Your task to perform on an android device: stop showing notifications on the lock screen Image 0: 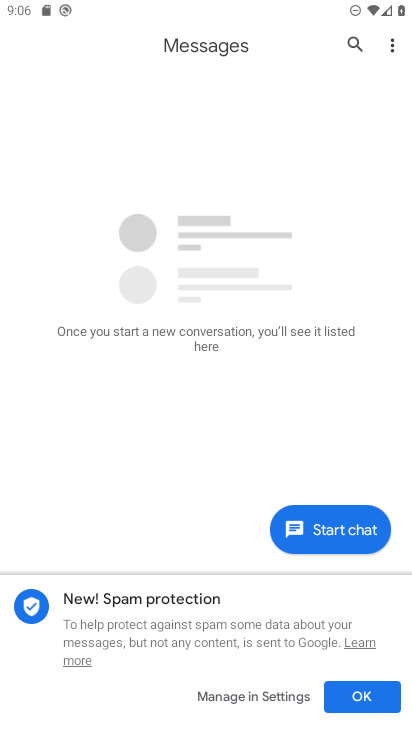
Step 0: press home button
Your task to perform on an android device: stop showing notifications on the lock screen Image 1: 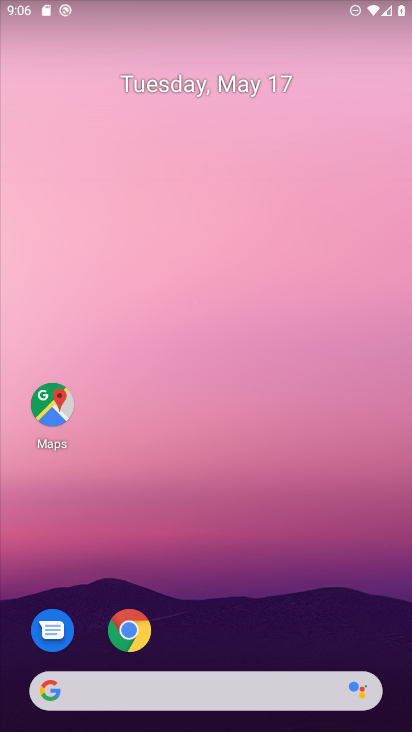
Step 1: drag from (356, 616) to (349, 193)
Your task to perform on an android device: stop showing notifications on the lock screen Image 2: 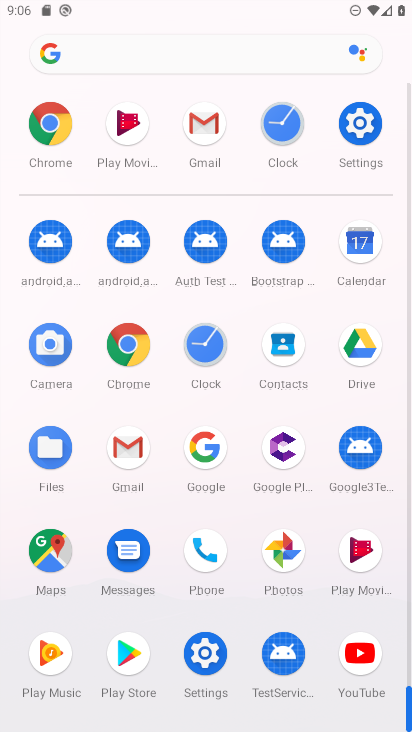
Step 2: click (219, 666)
Your task to perform on an android device: stop showing notifications on the lock screen Image 3: 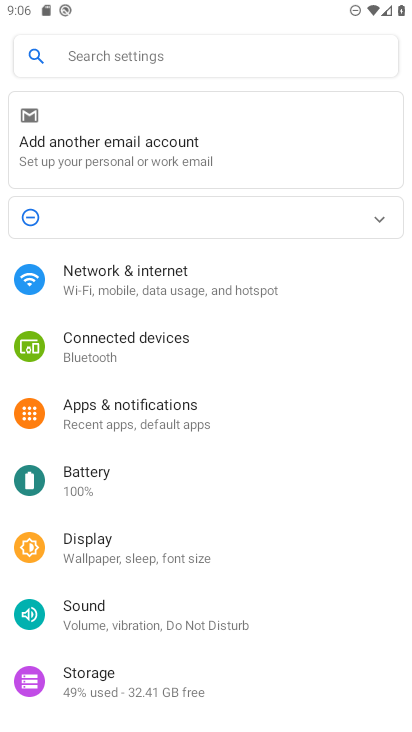
Step 3: drag from (322, 569) to (325, 466)
Your task to perform on an android device: stop showing notifications on the lock screen Image 4: 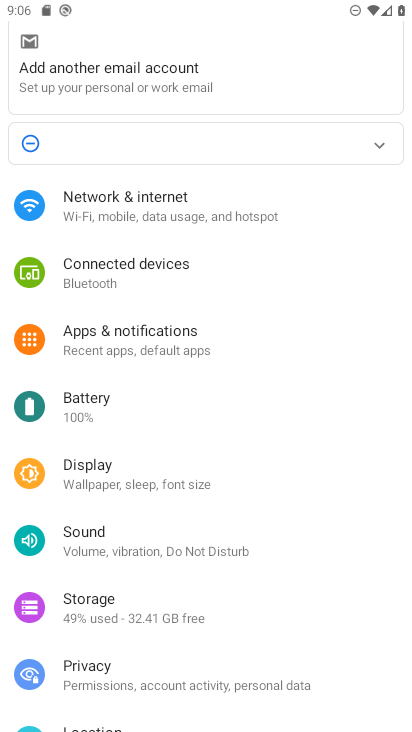
Step 4: drag from (321, 595) to (321, 485)
Your task to perform on an android device: stop showing notifications on the lock screen Image 5: 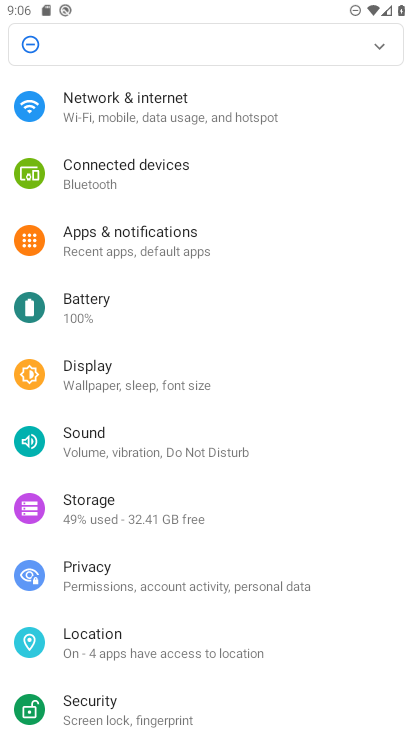
Step 5: drag from (337, 639) to (337, 508)
Your task to perform on an android device: stop showing notifications on the lock screen Image 6: 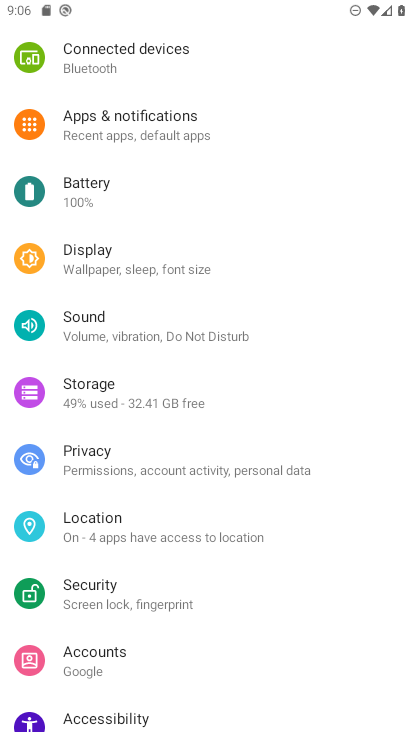
Step 6: drag from (321, 680) to (325, 529)
Your task to perform on an android device: stop showing notifications on the lock screen Image 7: 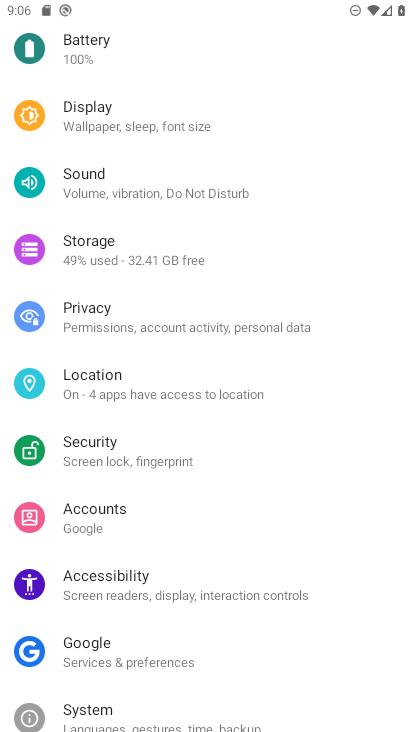
Step 7: drag from (341, 663) to (347, 545)
Your task to perform on an android device: stop showing notifications on the lock screen Image 8: 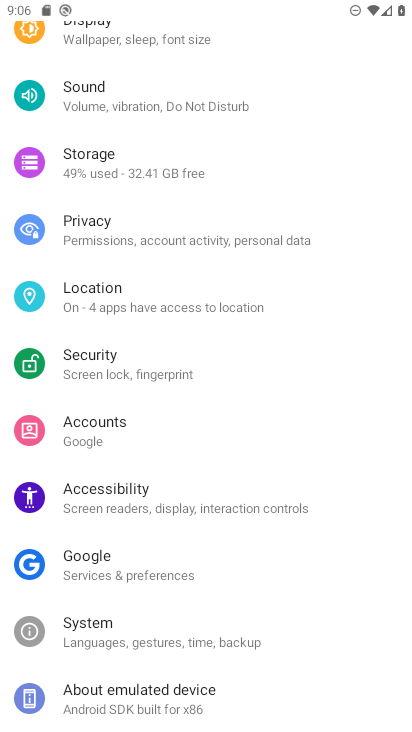
Step 8: drag from (347, 661) to (335, 536)
Your task to perform on an android device: stop showing notifications on the lock screen Image 9: 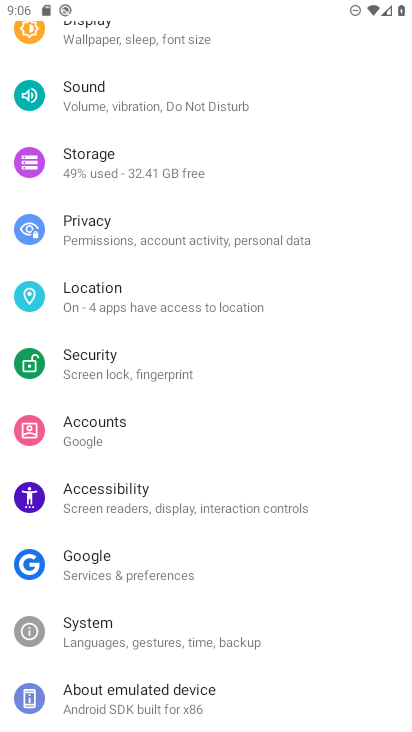
Step 9: drag from (338, 395) to (337, 525)
Your task to perform on an android device: stop showing notifications on the lock screen Image 10: 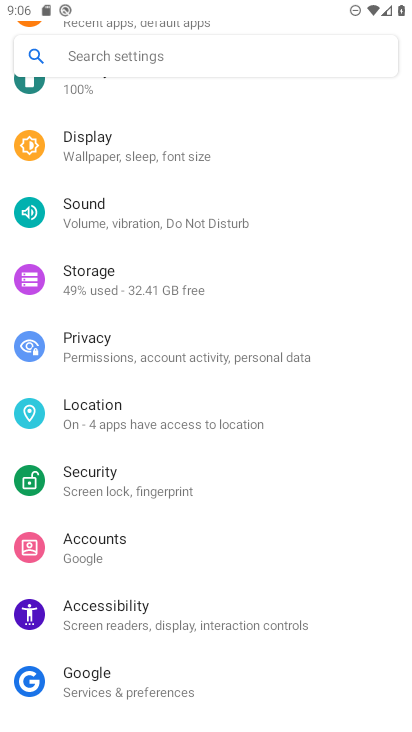
Step 10: drag from (347, 382) to (350, 511)
Your task to perform on an android device: stop showing notifications on the lock screen Image 11: 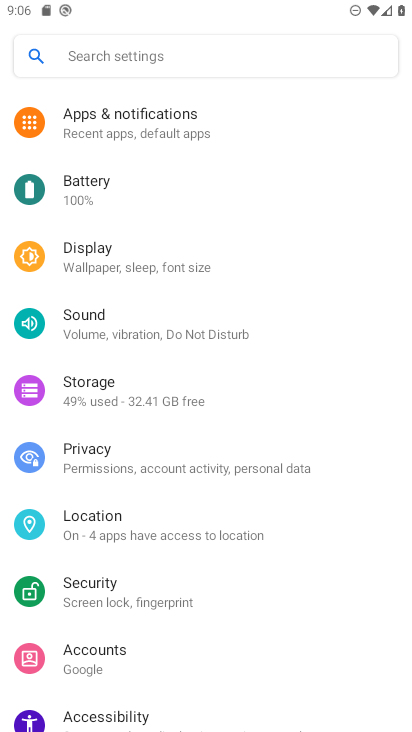
Step 11: drag from (359, 364) to (345, 514)
Your task to perform on an android device: stop showing notifications on the lock screen Image 12: 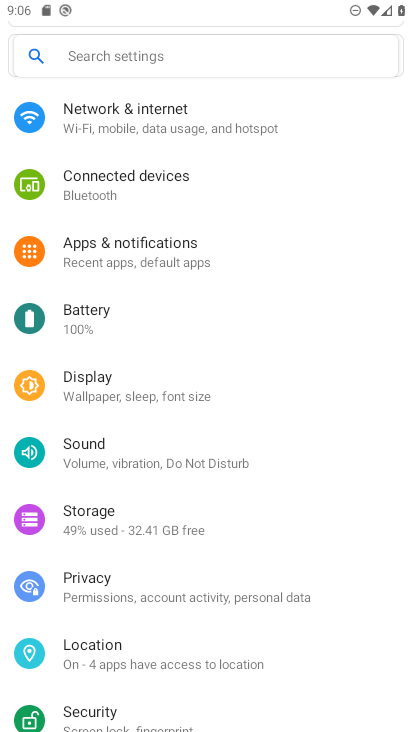
Step 12: drag from (334, 328) to (322, 452)
Your task to perform on an android device: stop showing notifications on the lock screen Image 13: 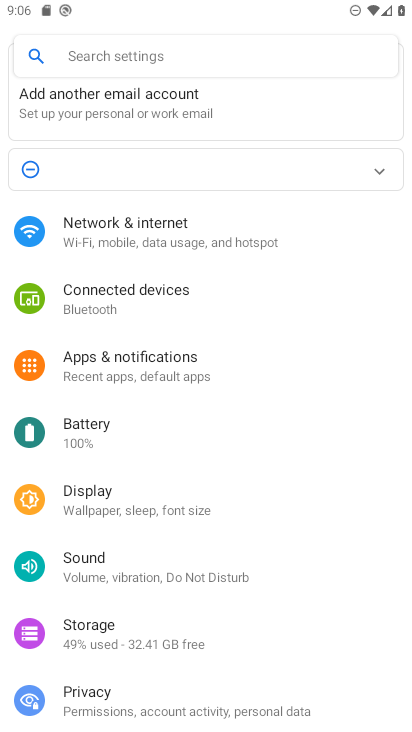
Step 13: click (189, 360)
Your task to perform on an android device: stop showing notifications on the lock screen Image 14: 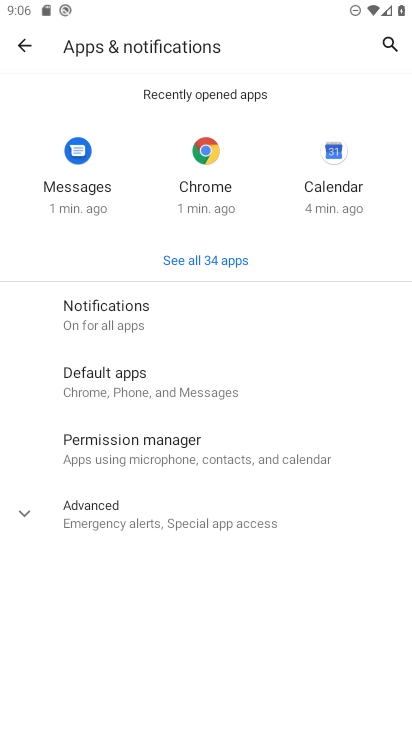
Step 14: click (127, 325)
Your task to perform on an android device: stop showing notifications on the lock screen Image 15: 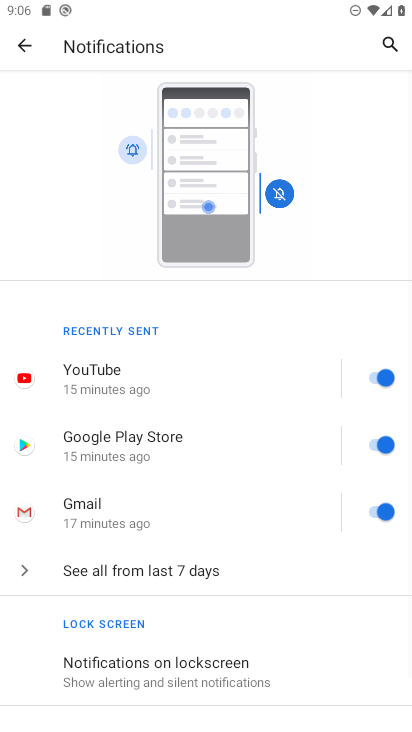
Step 15: drag from (288, 585) to (294, 475)
Your task to perform on an android device: stop showing notifications on the lock screen Image 16: 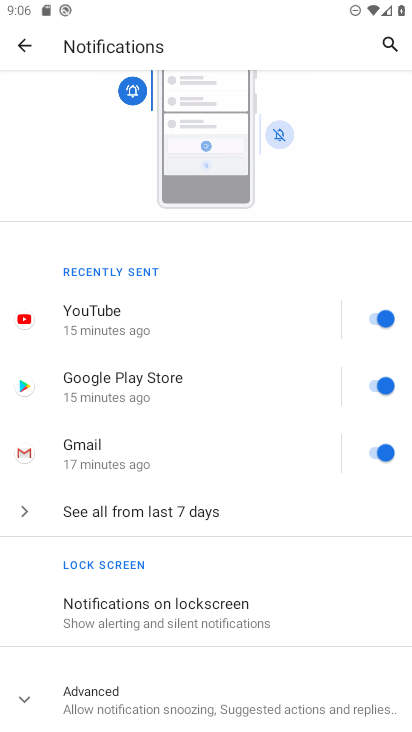
Step 16: drag from (302, 643) to (304, 515)
Your task to perform on an android device: stop showing notifications on the lock screen Image 17: 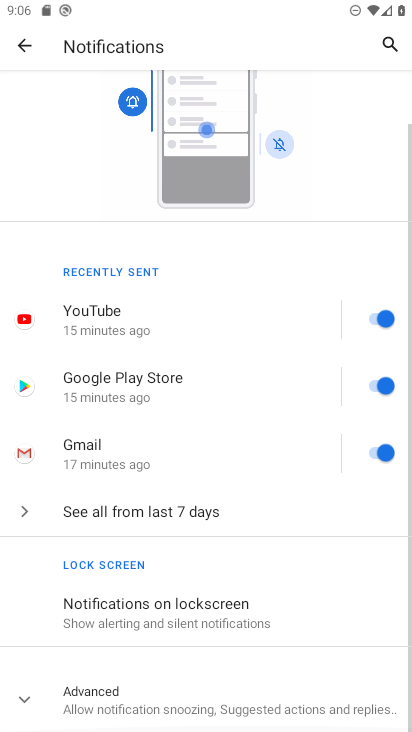
Step 17: click (242, 627)
Your task to perform on an android device: stop showing notifications on the lock screen Image 18: 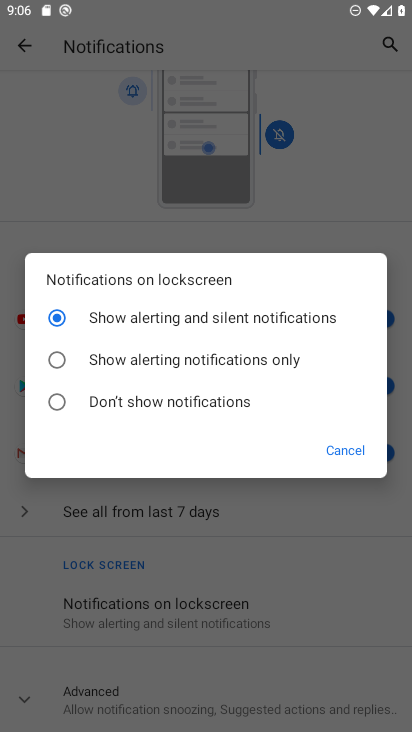
Step 18: click (112, 400)
Your task to perform on an android device: stop showing notifications on the lock screen Image 19: 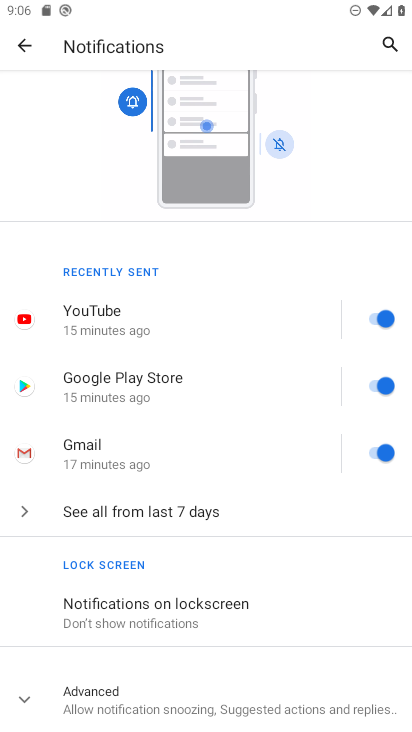
Step 19: task complete